Your task to perform on an android device: open chrome and create a bookmark for the current page Image 0: 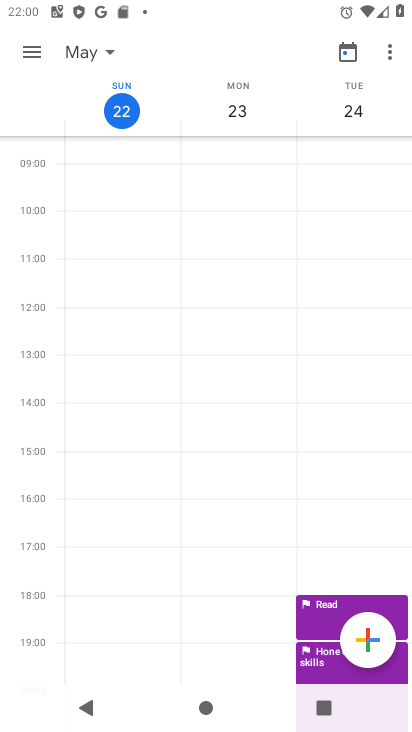
Step 0: press home button
Your task to perform on an android device: open chrome and create a bookmark for the current page Image 1: 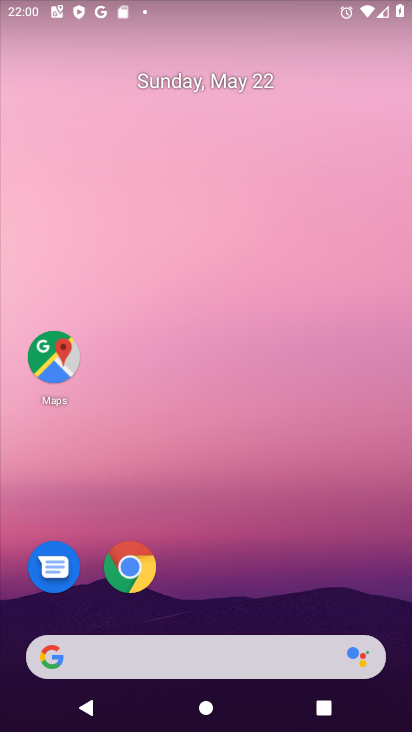
Step 1: drag from (185, 503) to (182, 8)
Your task to perform on an android device: open chrome and create a bookmark for the current page Image 2: 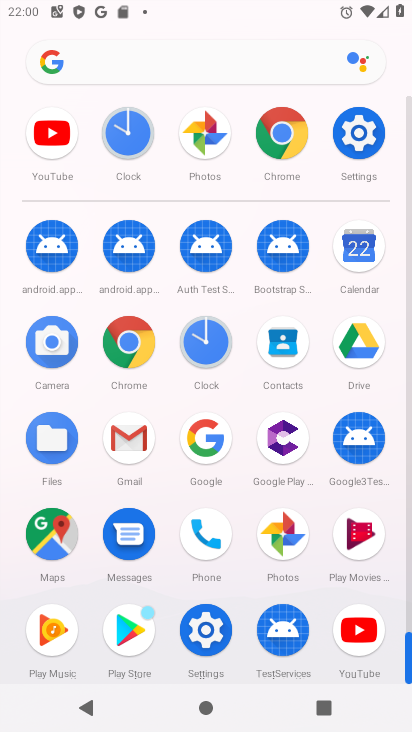
Step 2: click (126, 338)
Your task to perform on an android device: open chrome and create a bookmark for the current page Image 3: 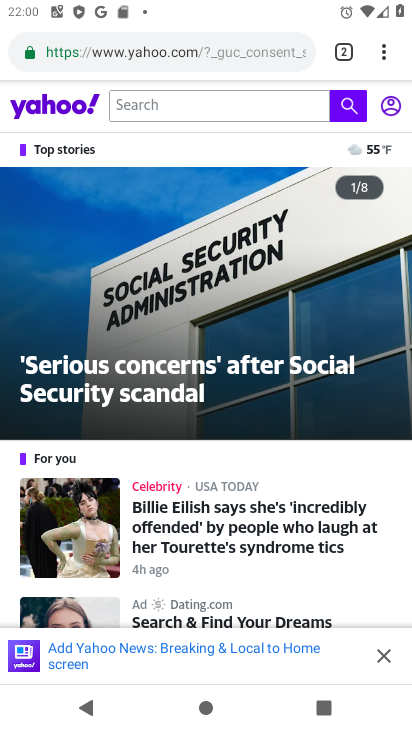
Step 3: click (387, 61)
Your task to perform on an android device: open chrome and create a bookmark for the current page Image 4: 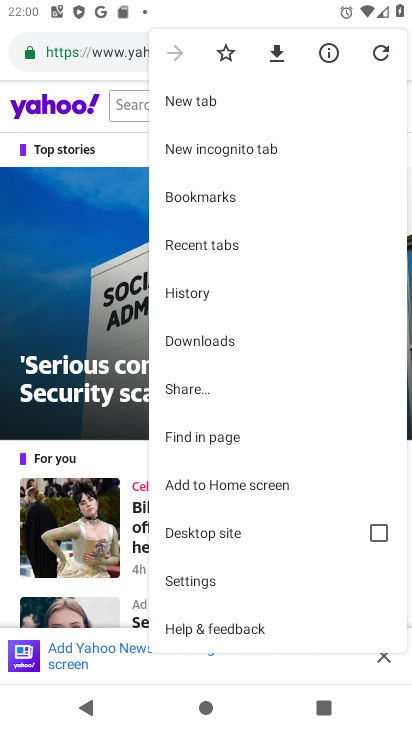
Step 4: click (221, 54)
Your task to perform on an android device: open chrome and create a bookmark for the current page Image 5: 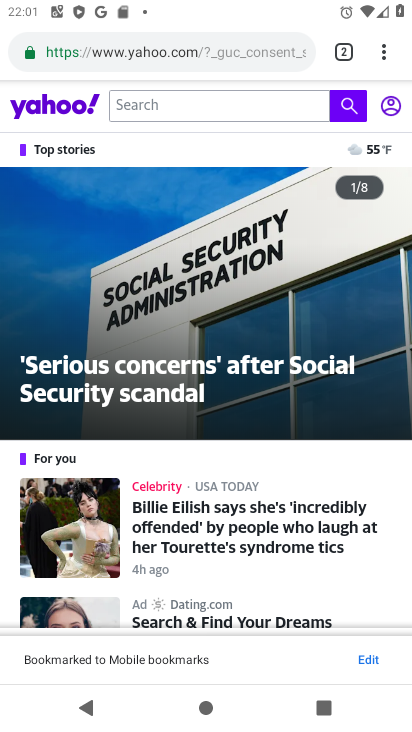
Step 5: task complete